Your task to perform on an android device: open a new tab in the chrome app Image 0: 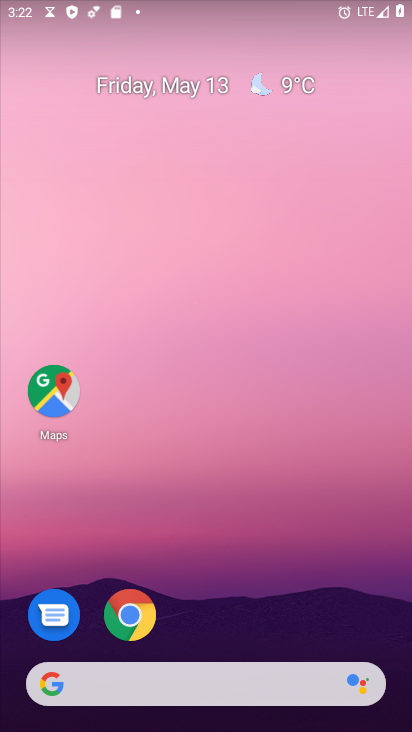
Step 0: click (134, 621)
Your task to perform on an android device: open a new tab in the chrome app Image 1: 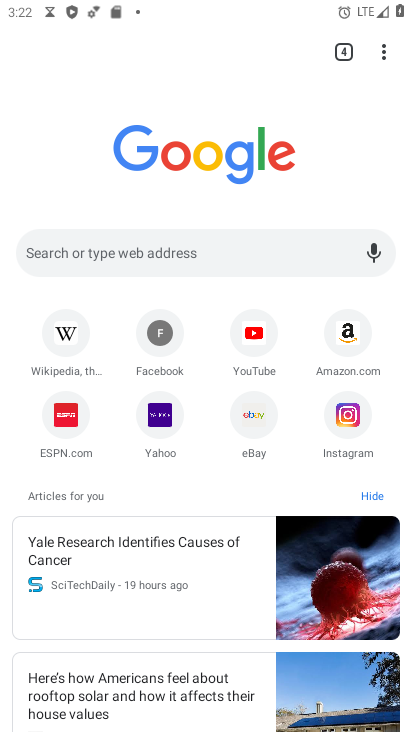
Step 1: click (384, 55)
Your task to perform on an android device: open a new tab in the chrome app Image 2: 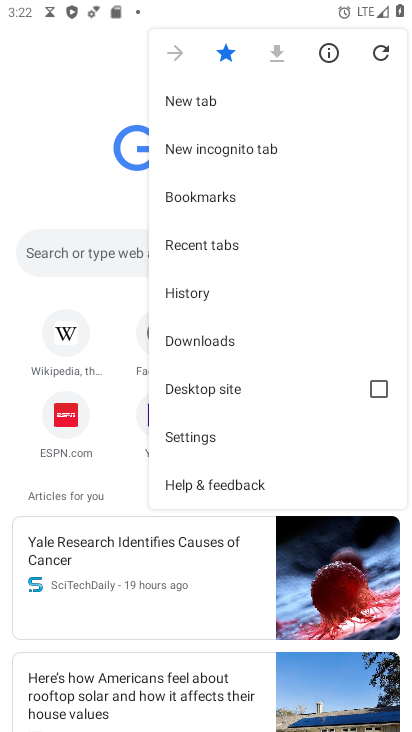
Step 2: click (199, 97)
Your task to perform on an android device: open a new tab in the chrome app Image 3: 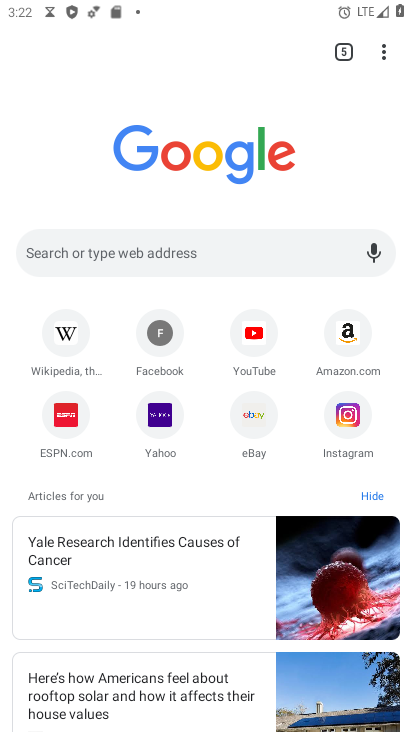
Step 3: task complete